Your task to perform on an android device: Set the phone to "Do not disturb". Image 0: 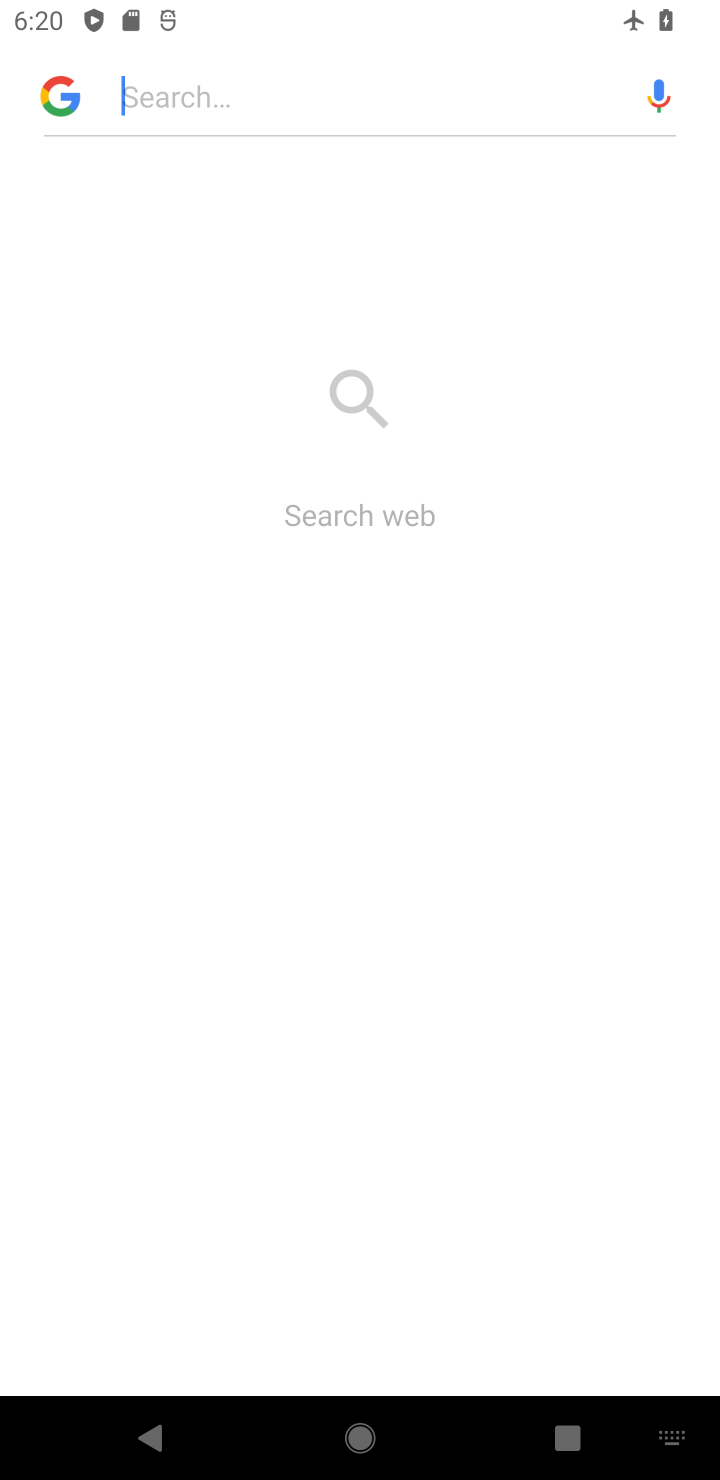
Step 0: press home button
Your task to perform on an android device: Set the phone to "Do not disturb". Image 1: 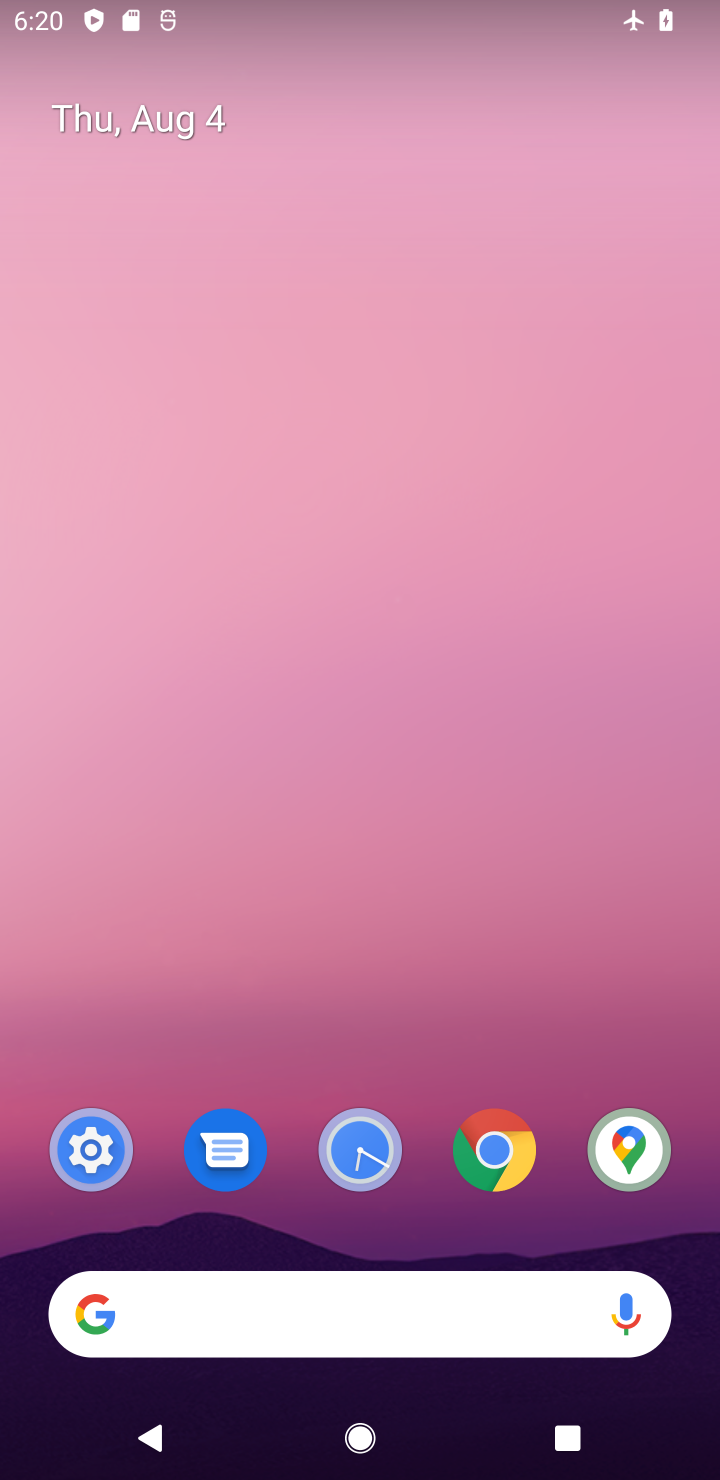
Step 1: drag from (361, 1305) to (330, 54)
Your task to perform on an android device: Set the phone to "Do not disturb". Image 2: 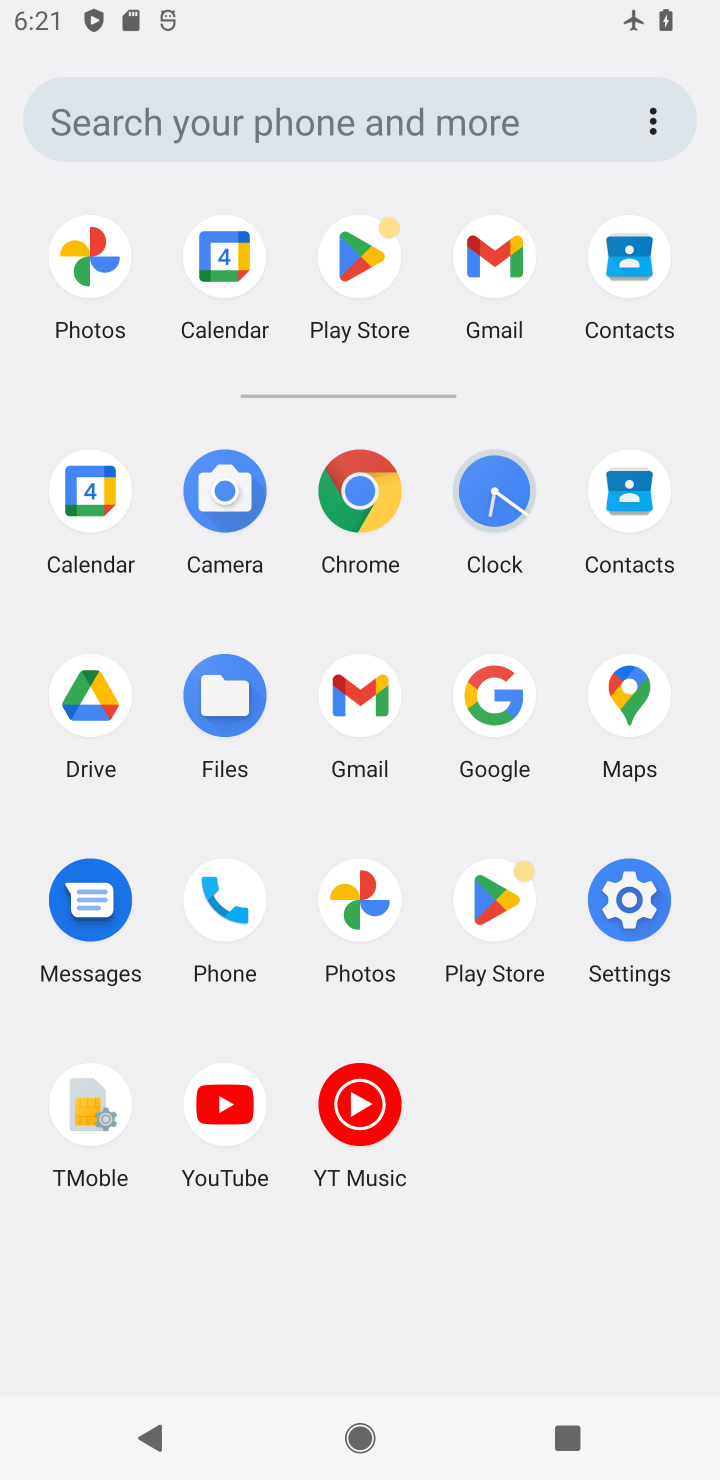
Step 2: click (643, 886)
Your task to perform on an android device: Set the phone to "Do not disturb". Image 3: 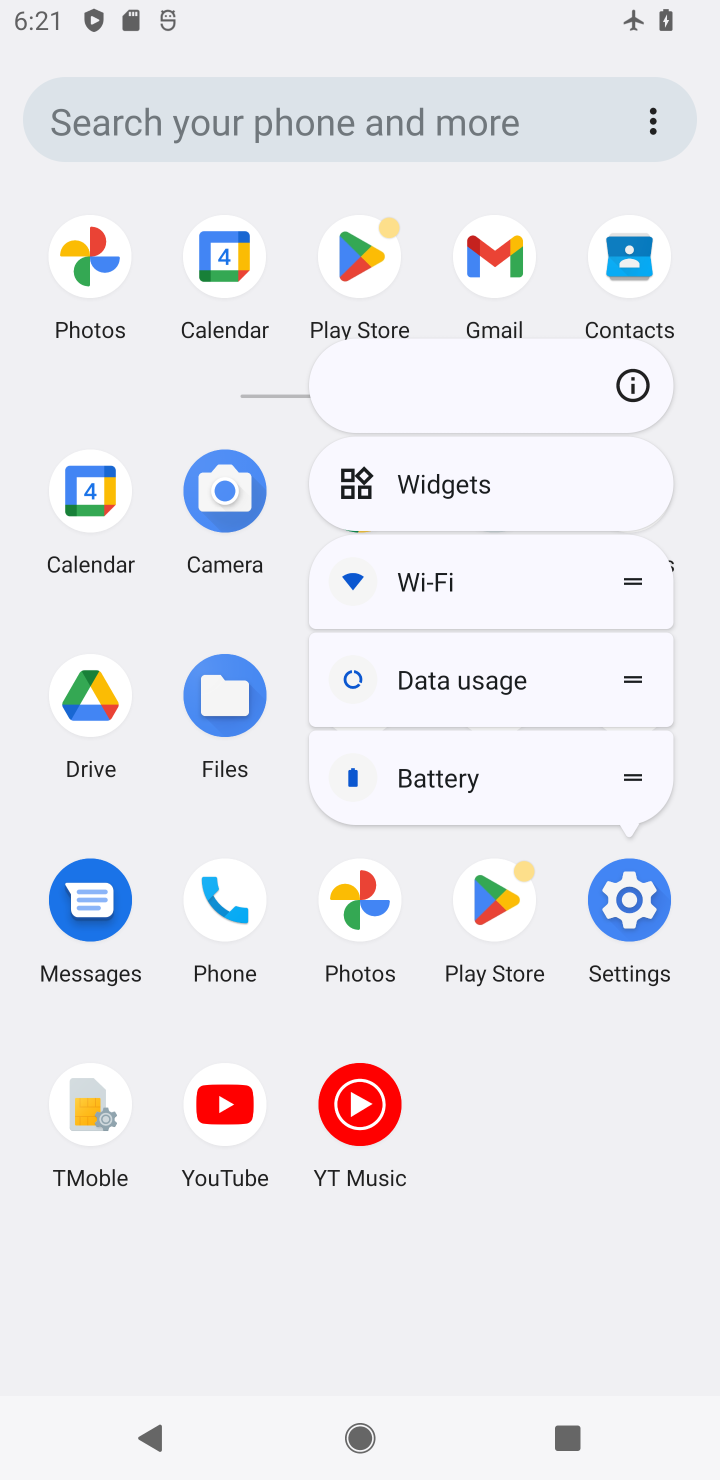
Step 3: click (643, 886)
Your task to perform on an android device: Set the phone to "Do not disturb". Image 4: 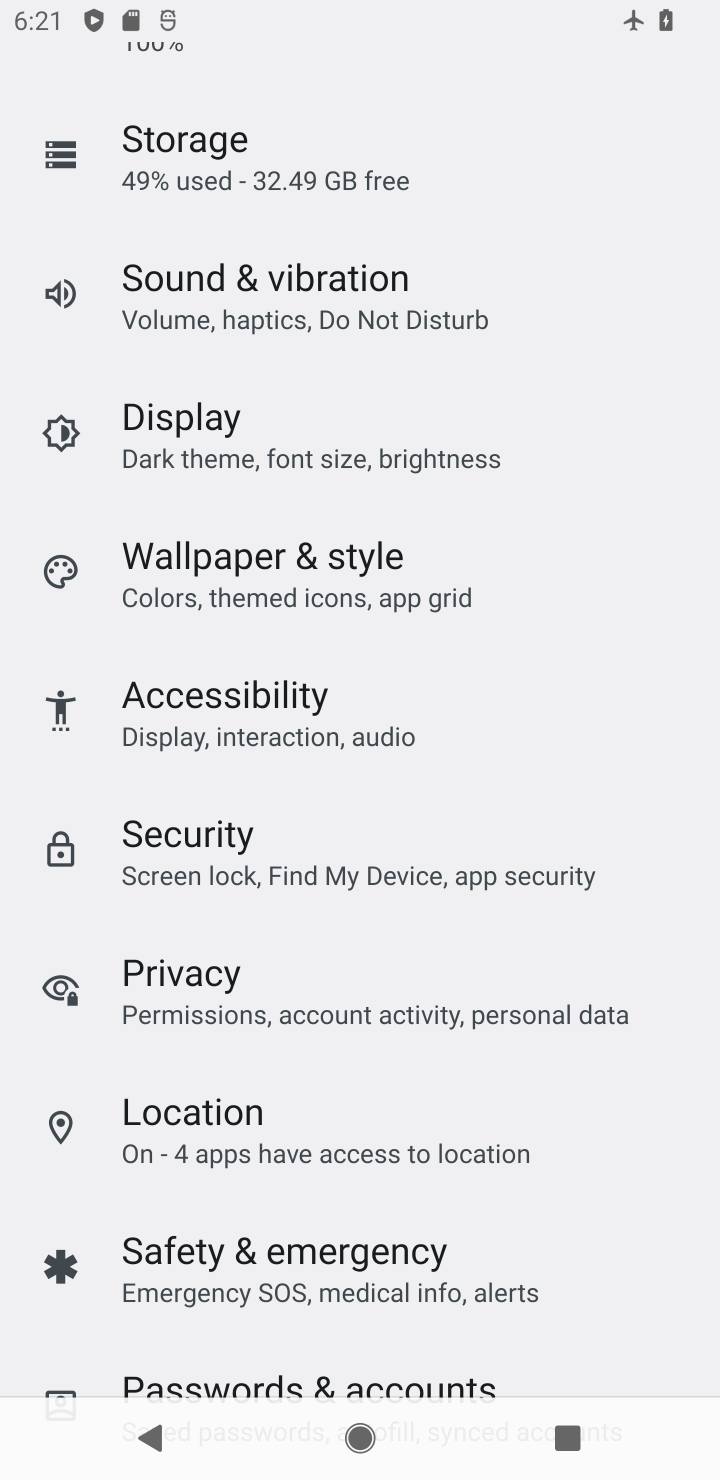
Step 4: click (291, 284)
Your task to perform on an android device: Set the phone to "Do not disturb". Image 5: 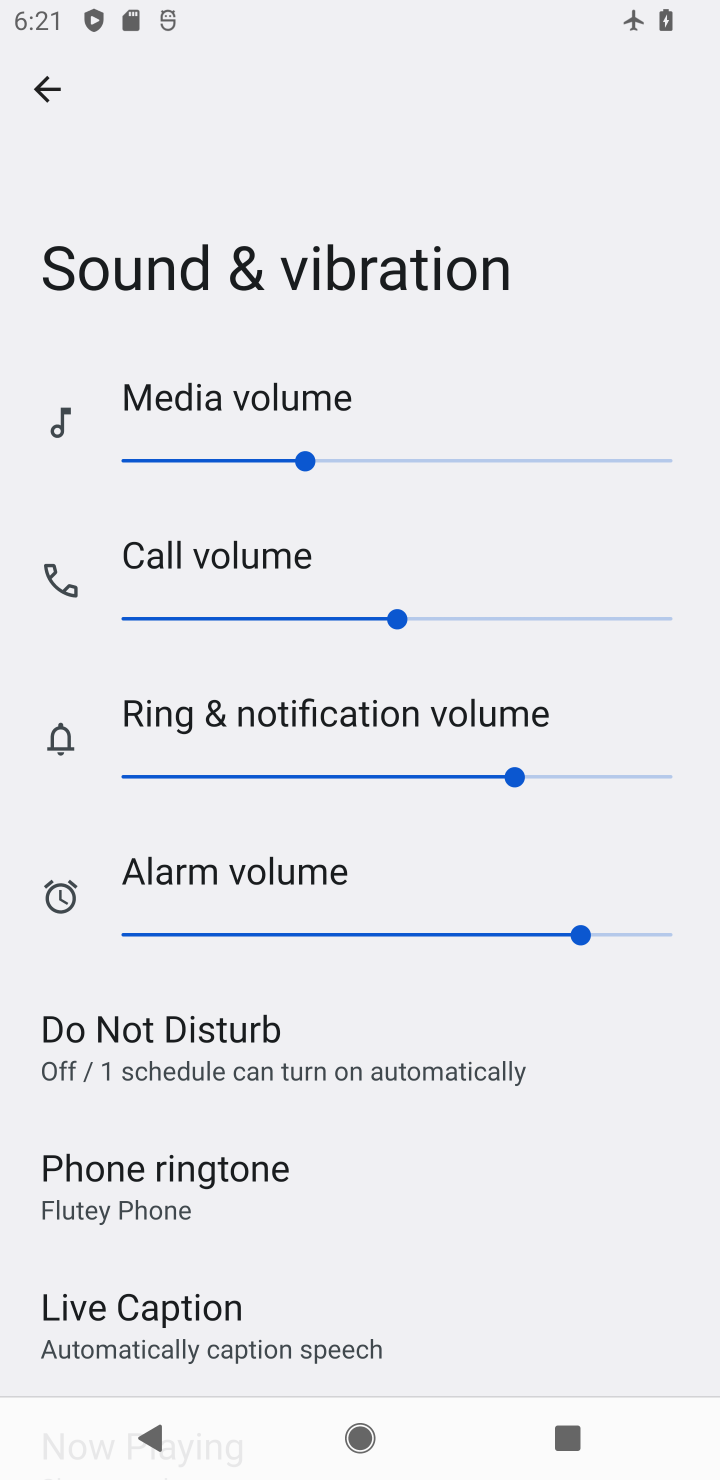
Step 5: click (396, 1021)
Your task to perform on an android device: Set the phone to "Do not disturb". Image 6: 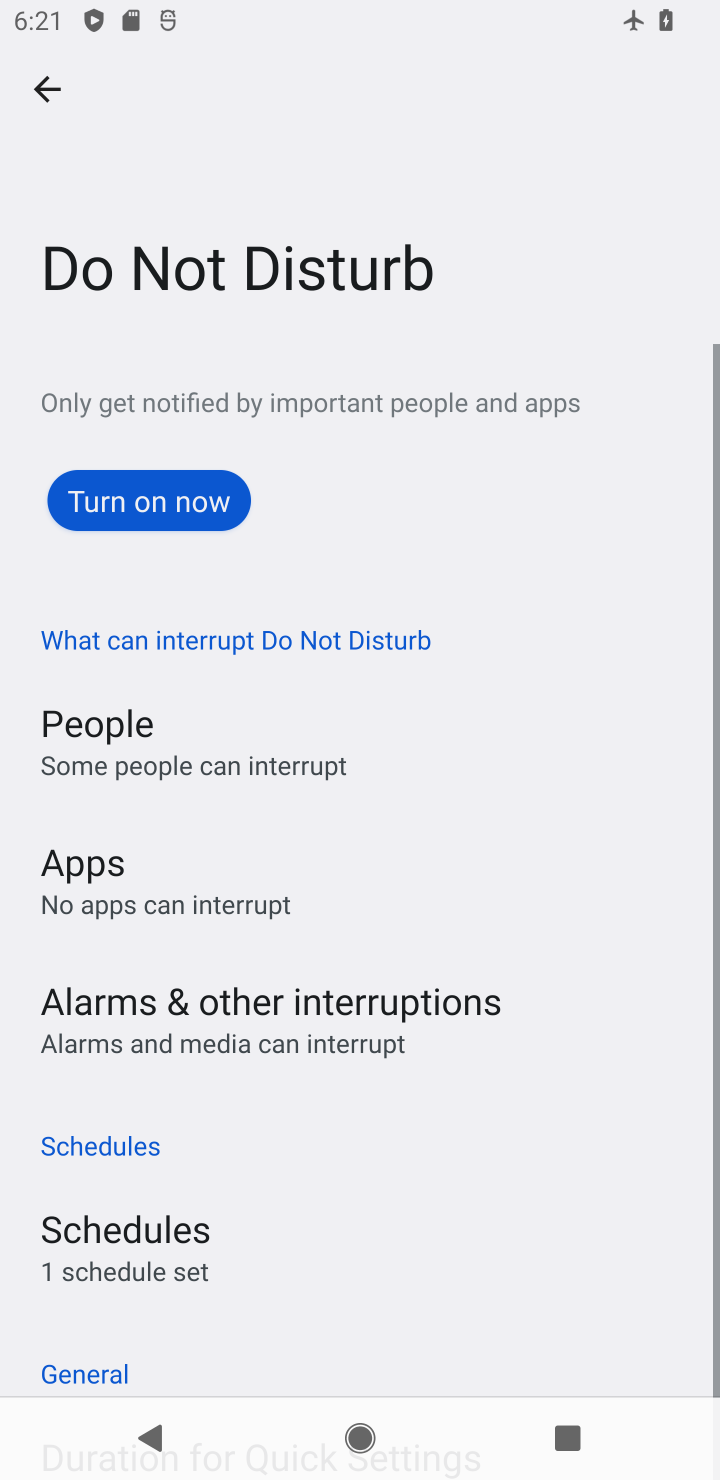
Step 6: click (182, 510)
Your task to perform on an android device: Set the phone to "Do not disturb". Image 7: 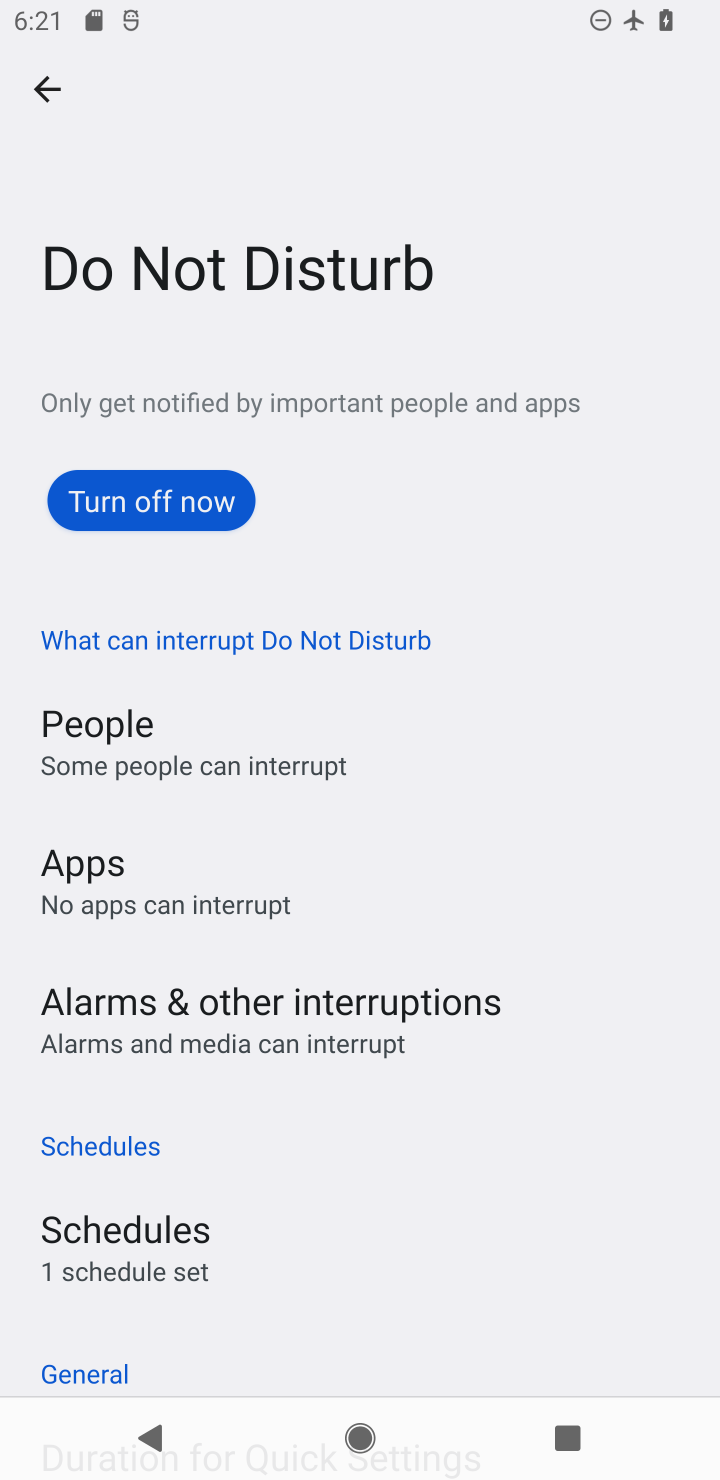
Step 7: task complete